Your task to perform on an android device: Open display settings Image 0: 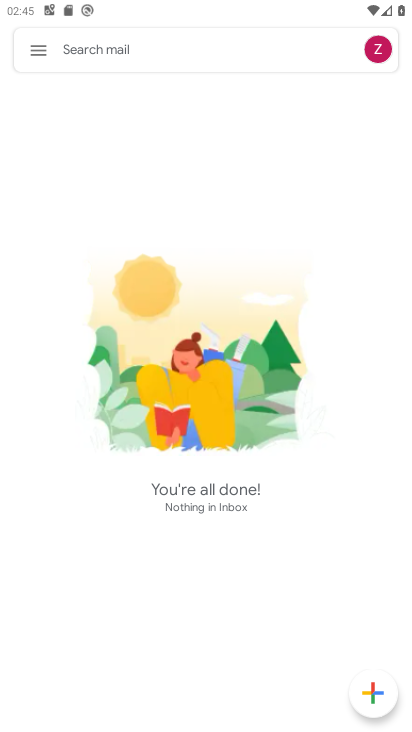
Step 0: press home button
Your task to perform on an android device: Open display settings Image 1: 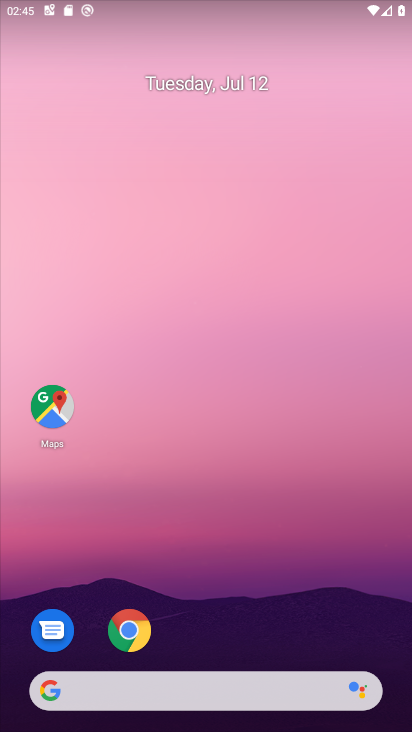
Step 1: drag from (395, 662) to (370, 127)
Your task to perform on an android device: Open display settings Image 2: 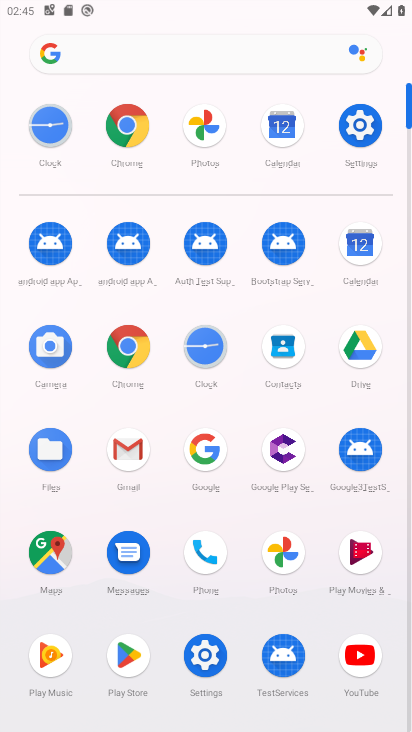
Step 2: click (205, 656)
Your task to perform on an android device: Open display settings Image 3: 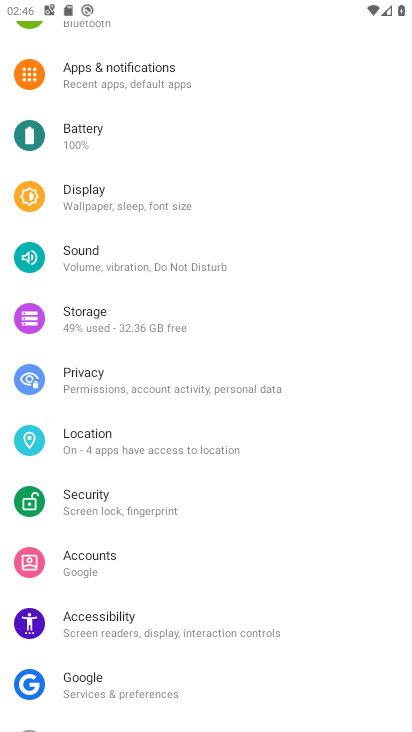
Step 3: click (92, 193)
Your task to perform on an android device: Open display settings Image 4: 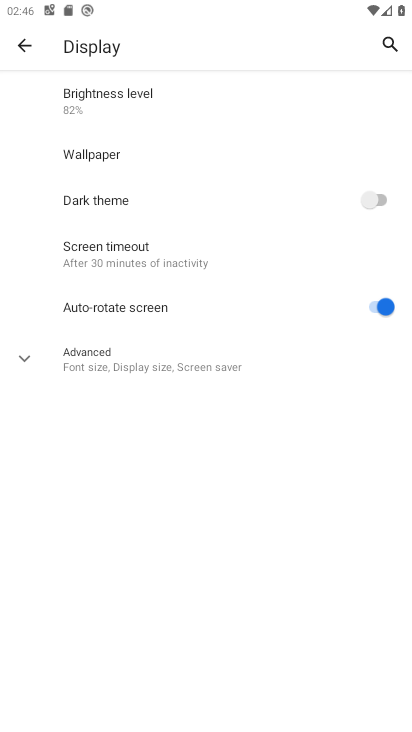
Step 4: click (22, 356)
Your task to perform on an android device: Open display settings Image 5: 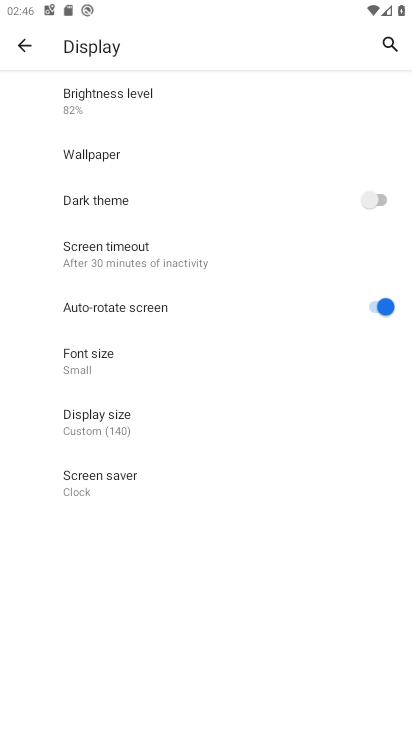
Step 5: task complete